Your task to perform on an android device: turn on the 24-hour format for clock Image 0: 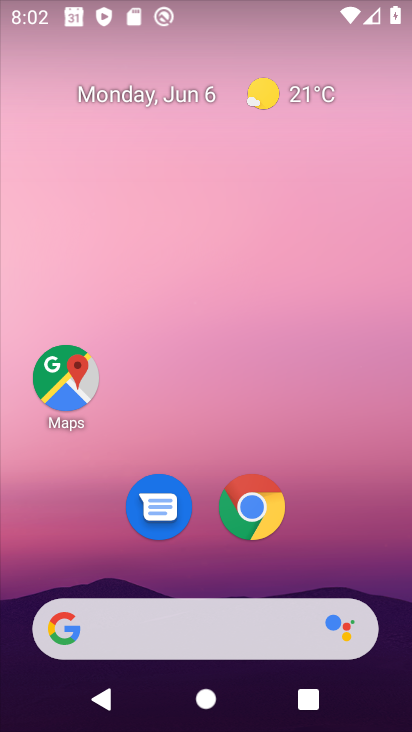
Step 0: drag from (201, 554) to (269, 34)
Your task to perform on an android device: turn on the 24-hour format for clock Image 1: 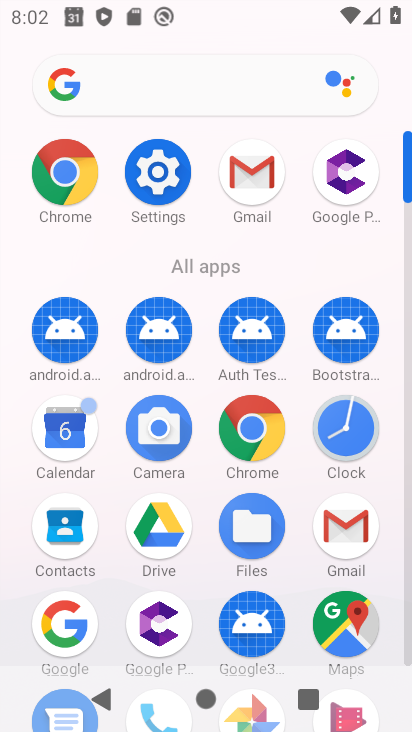
Step 1: click (346, 429)
Your task to perform on an android device: turn on the 24-hour format for clock Image 2: 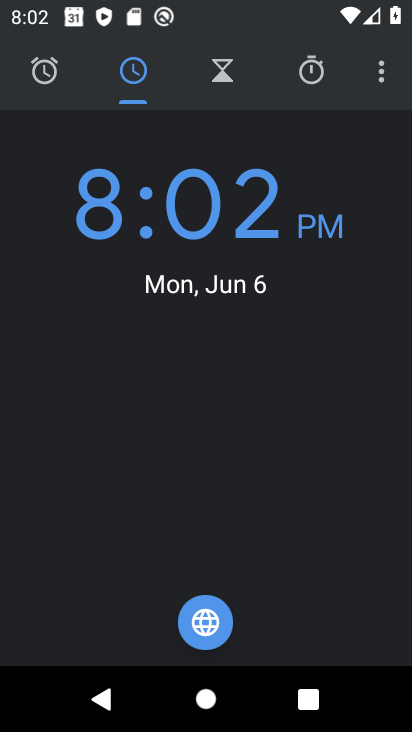
Step 2: click (381, 73)
Your task to perform on an android device: turn on the 24-hour format for clock Image 3: 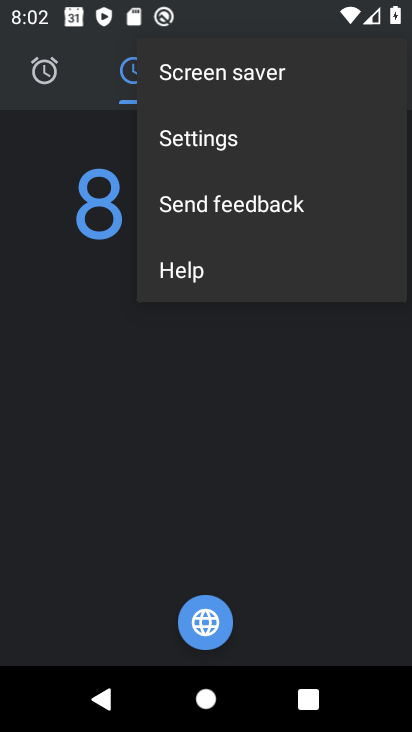
Step 3: click (230, 156)
Your task to perform on an android device: turn on the 24-hour format for clock Image 4: 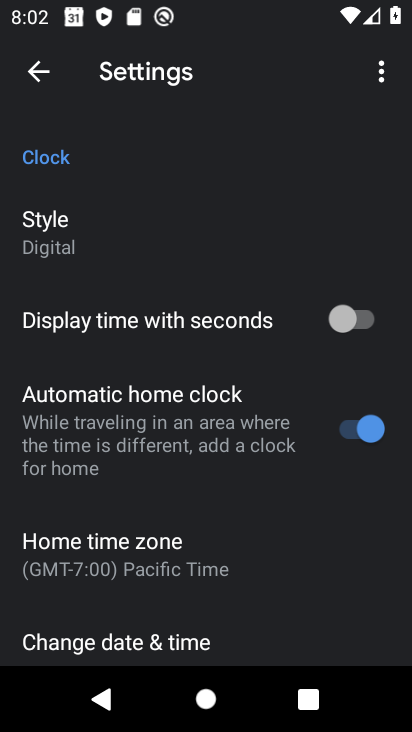
Step 4: drag from (254, 541) to (273, 158)
Your task to perform on an android device: turn on the 24-hour format for clock Image 5: 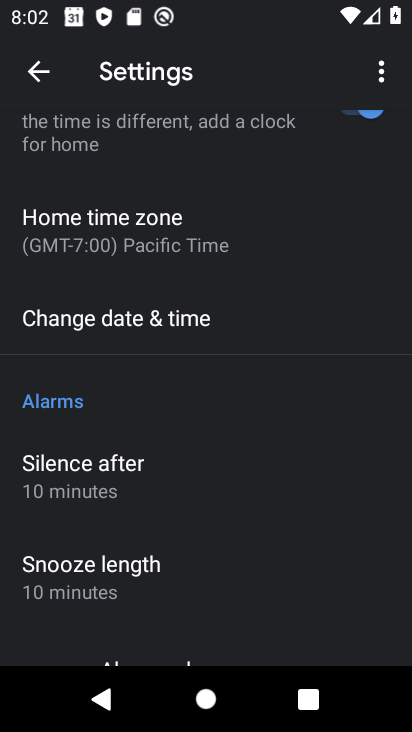
Step 5: click (132, 319)
Your task to perform on an android device: turn on the 24-hour format for clock Image 6: 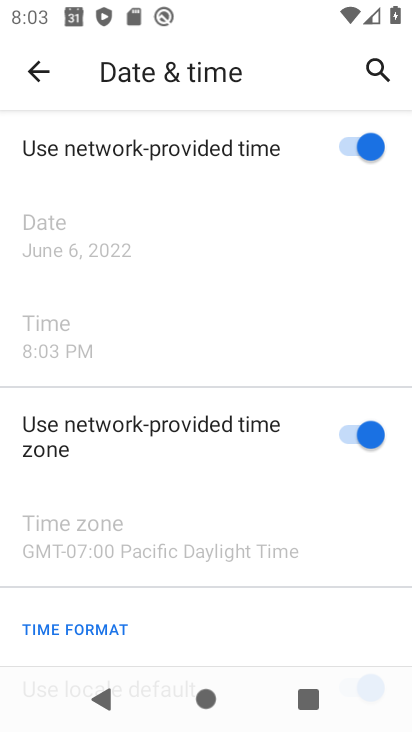
Step 6: drag from (198, 556) to (218, 55)
Your task to perform on an android device: turn on the 24-hour format for clock Image 7: 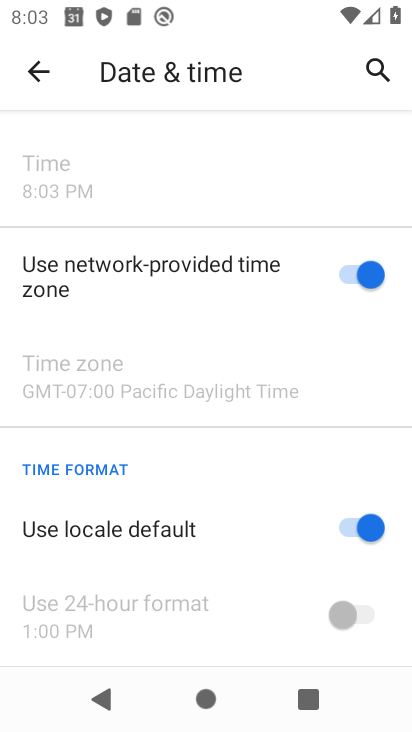
Step 7: click (345, 541)
Your task to perform on an android device: turn on the 24-hour format for clock Image 8: 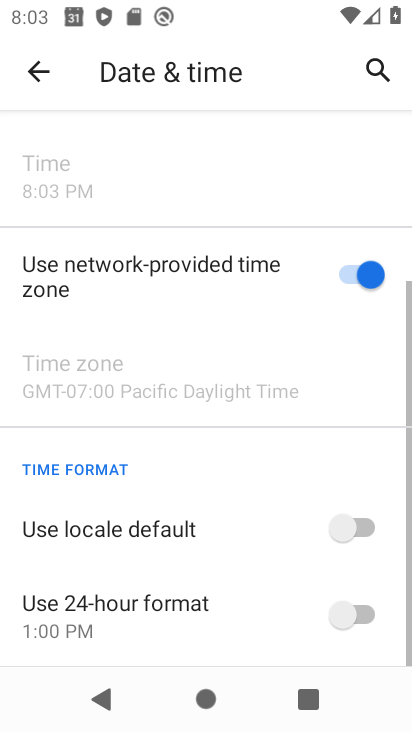
Step 8: click (364, 612)
Your task to perform on an android device: turn on the 24-hour format for clock Image 9: 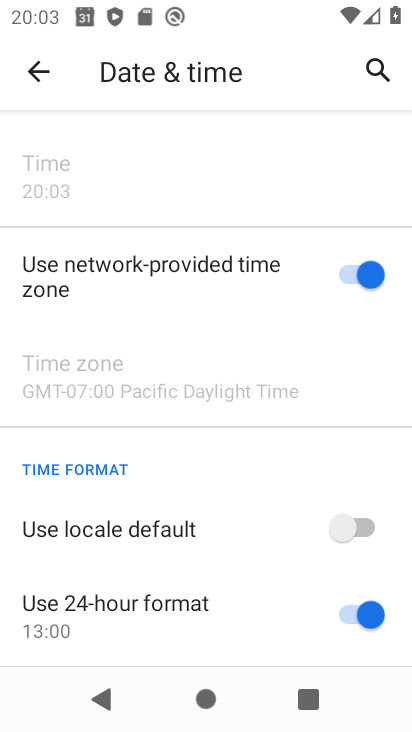
Step 9: task complete